Your task to perform on an android device: set an alarm Image 0: 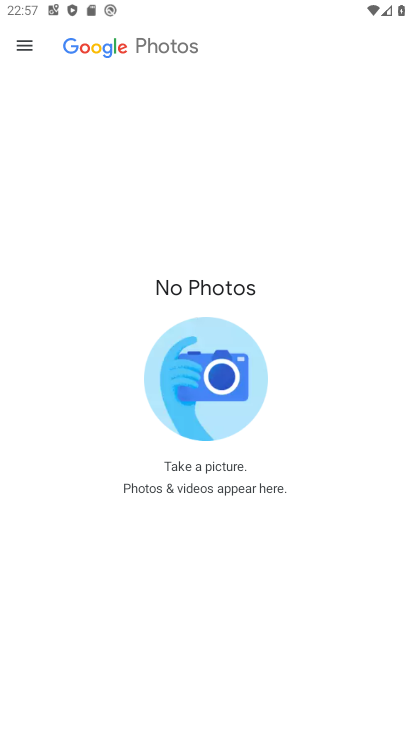
Step 0: press home button
Your task to perform on an android device: set an alarm Image 1: 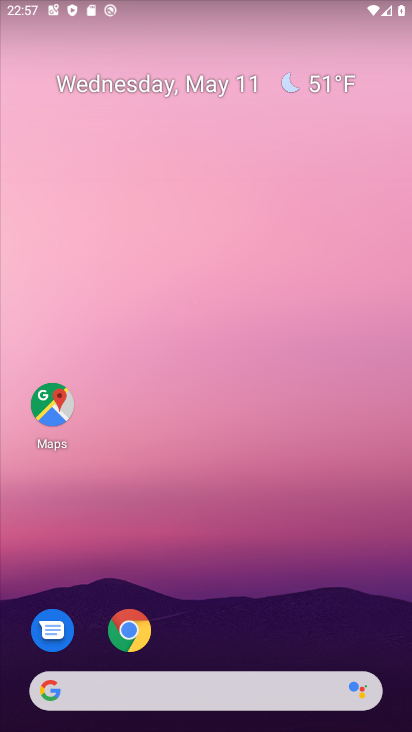
Step 1: drag from (200, 725) to (233, 166)
Your task to perform on an android device: set an alarm Image 2: 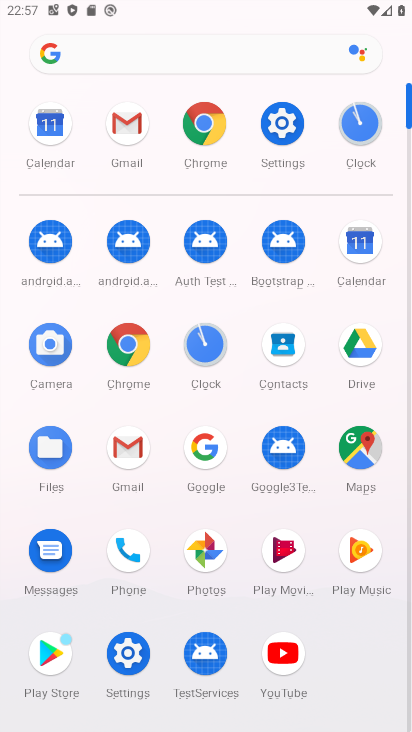
Step 2: click (362, 123)
Your task to perform on an android device: set an alarm Image 3: 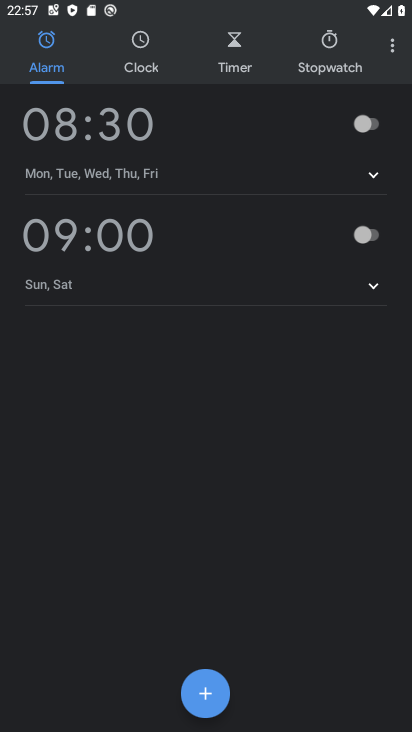
Step 3: click (204, 693)
Your task to perform on an android device: set an alarm Image 4: 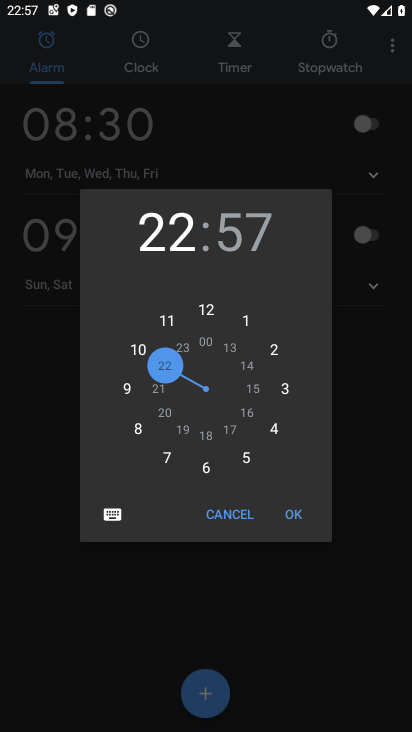
Step 4: click (240, 453)
Your task to perform on an android device: set an alarm Image 5: 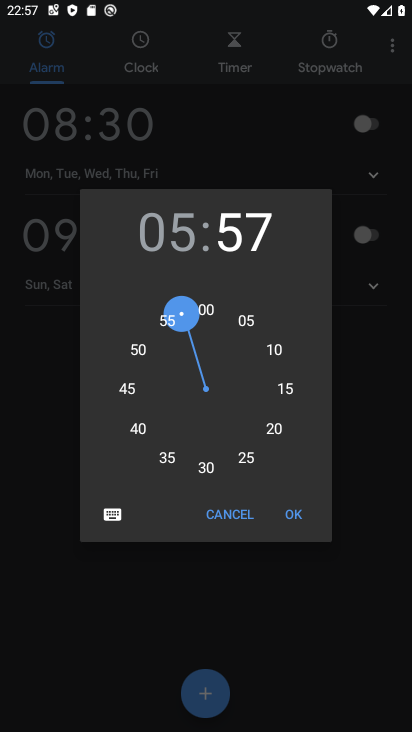
Step 5: click (287, 510)
Your task to perform on an android device: set an alarm Image 6: 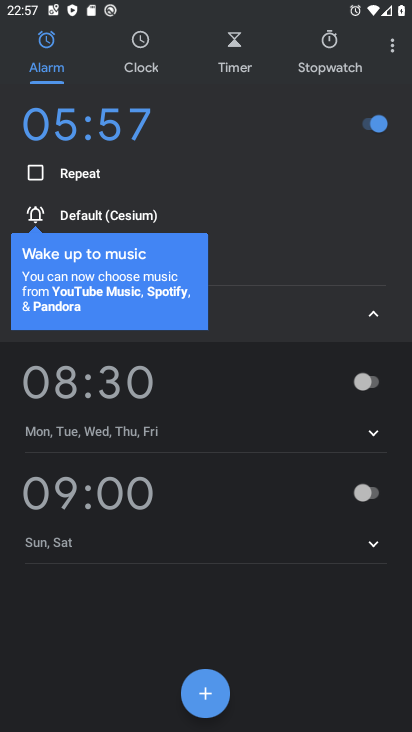
Step 6: task complete